Your task to perform on an android device: Open a new Chrome private window Image 0: 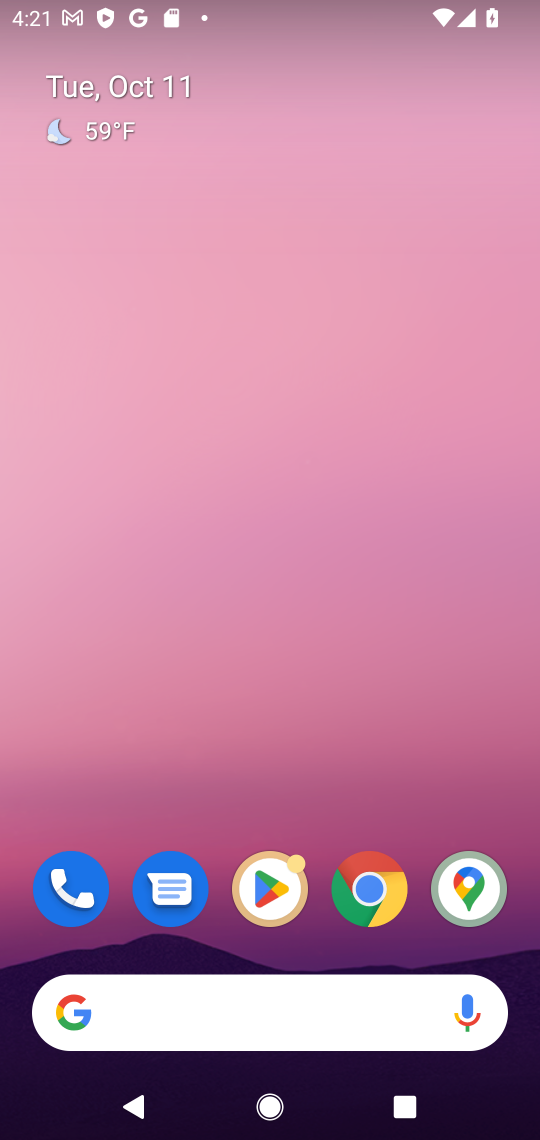
Step 0: drag from (179, 934) to (189, 237)
Your task to perform on an android device: Open a new Chrome private window Image 1: 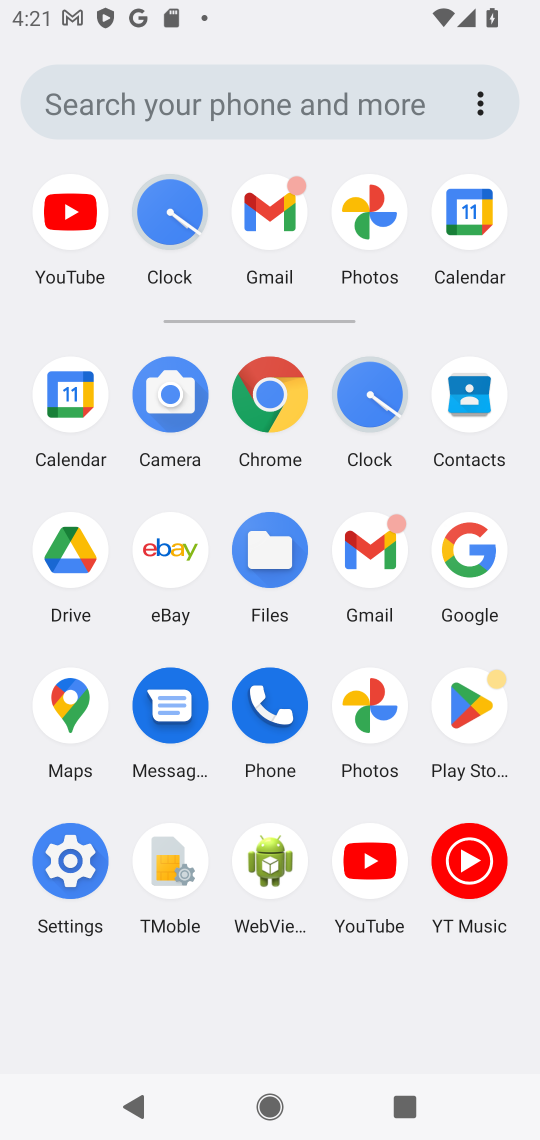
Step 1: click (458, 544)
Your task to perform on an android device: Open a new Chrome private window Image 2: 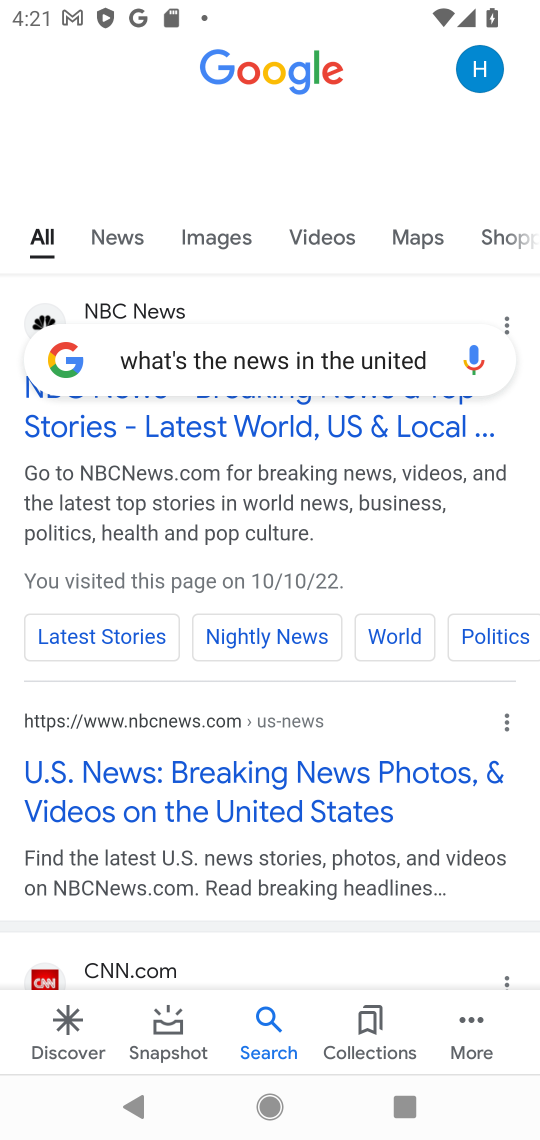
Step 2: click (184, 359)
Your task to perform on an android device: Open a new Chrome private window Image 3: 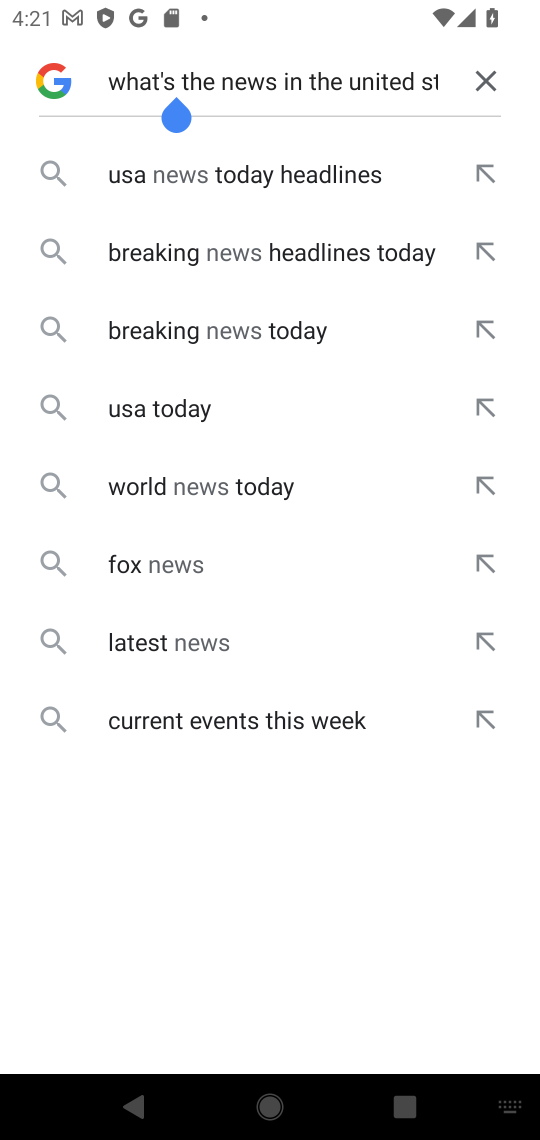
Step 3: click (478, 71)
Your task to perform on an android device: Open a new Chrome private window Image 4: 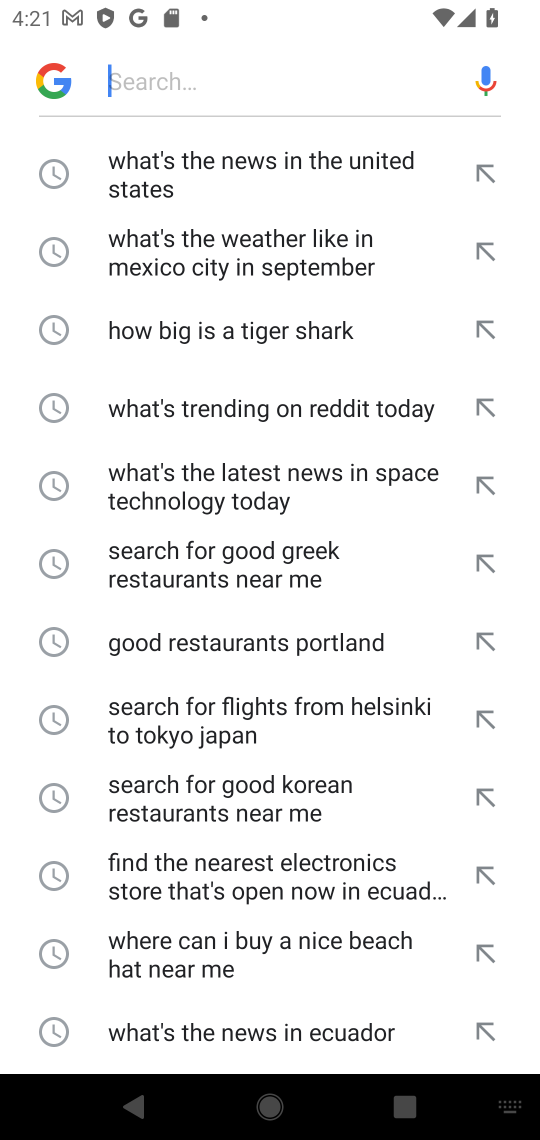
Step 4: press home button
Your task to perform on an android device: Open a new Chrome private window Image 5: 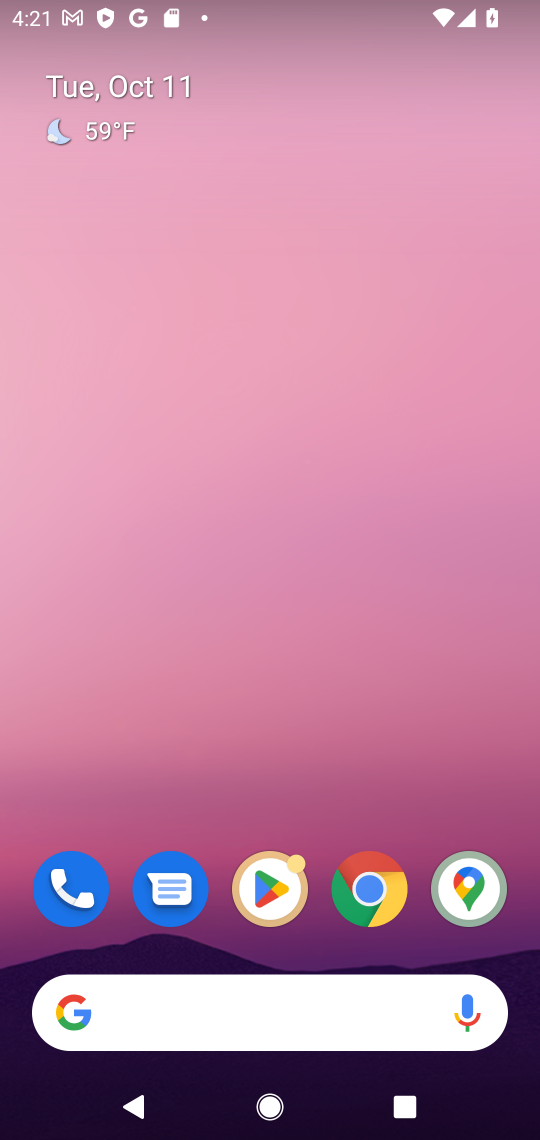
Step 5: drag from (316, 1012) to (310, 450)
Your task to perform on an android device: Open a new Chrome private window Image 6: 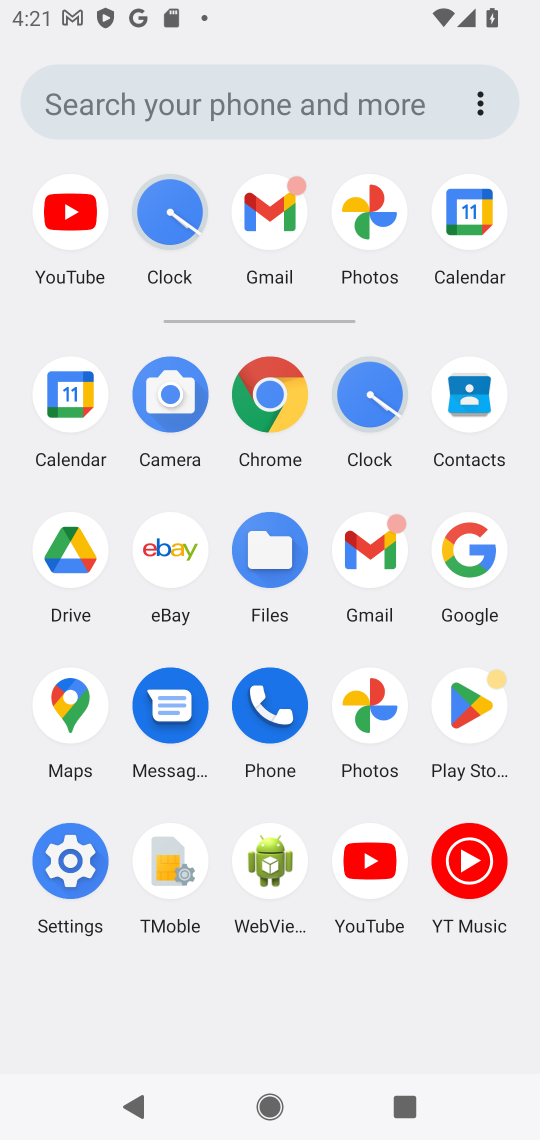
Step 6: click (461, 542)
Your task to perform on an android device: Open a new Chrome private window Image 7: 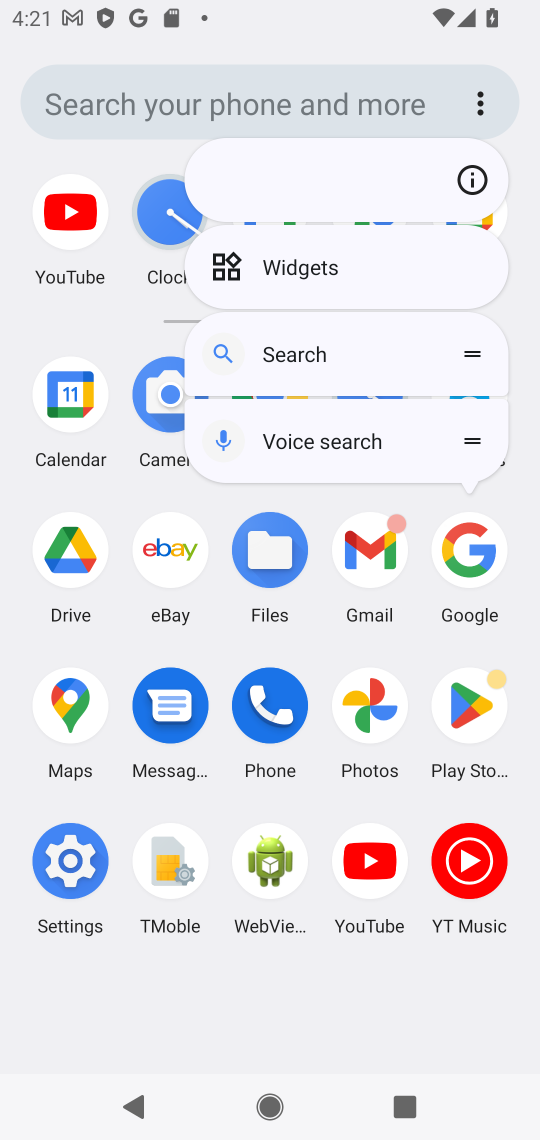
Step 7: press back button
Your task to perform on an android device: Open a new Chrome private window Image 8: 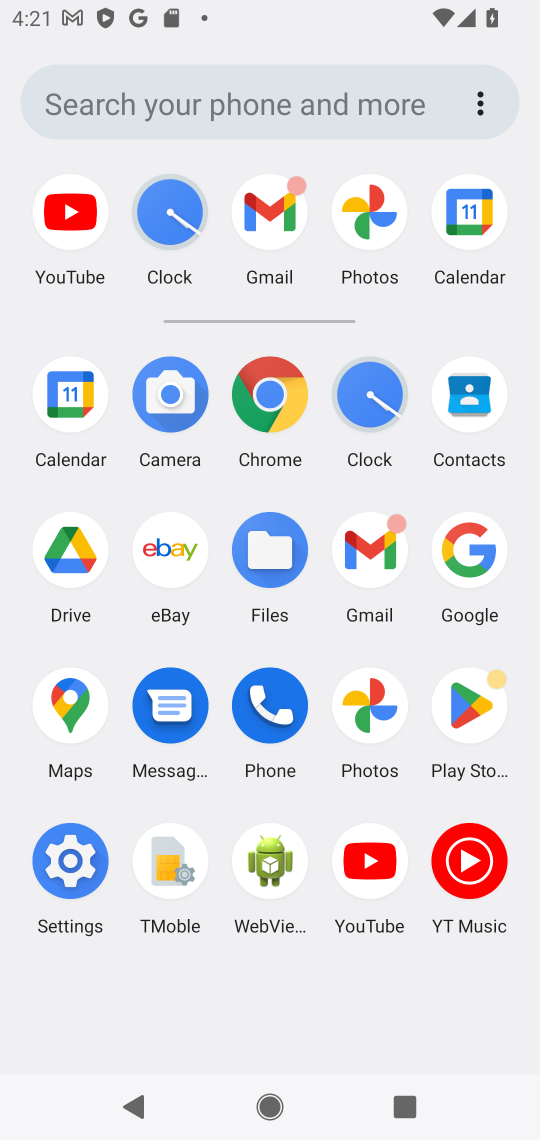
Step 8: click (262, 396)
Your task to perform on an android device: Open a new Chrome private window Image 9: 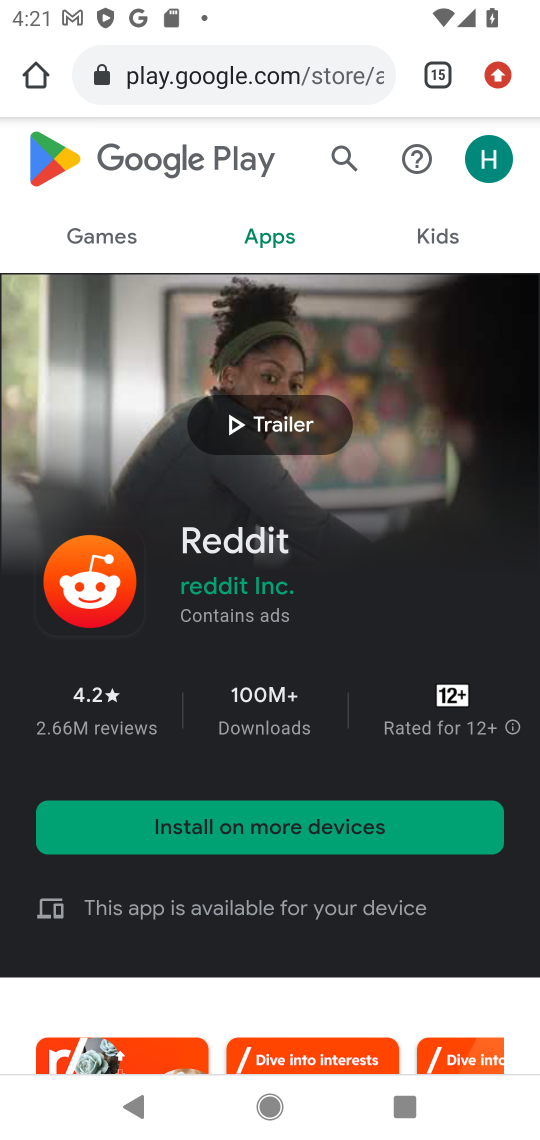
Step 9: click (501, 67)
Your task to perform on an android device: Open a new Chrome private window Image 10: 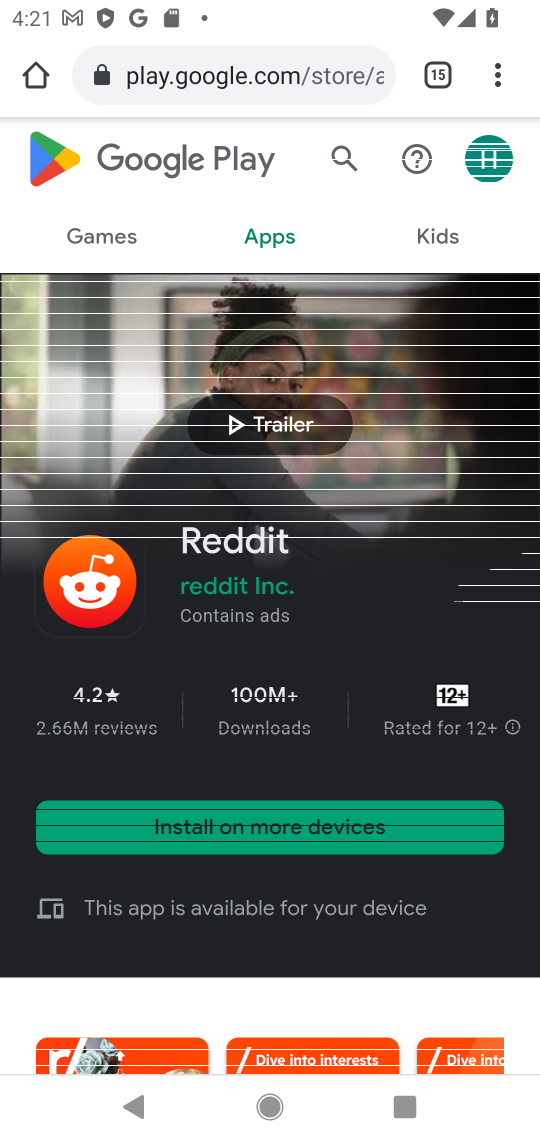
Step 10: click (501, 67)
Your task to perform on an android device: Open a new Chrome private window Image 11: 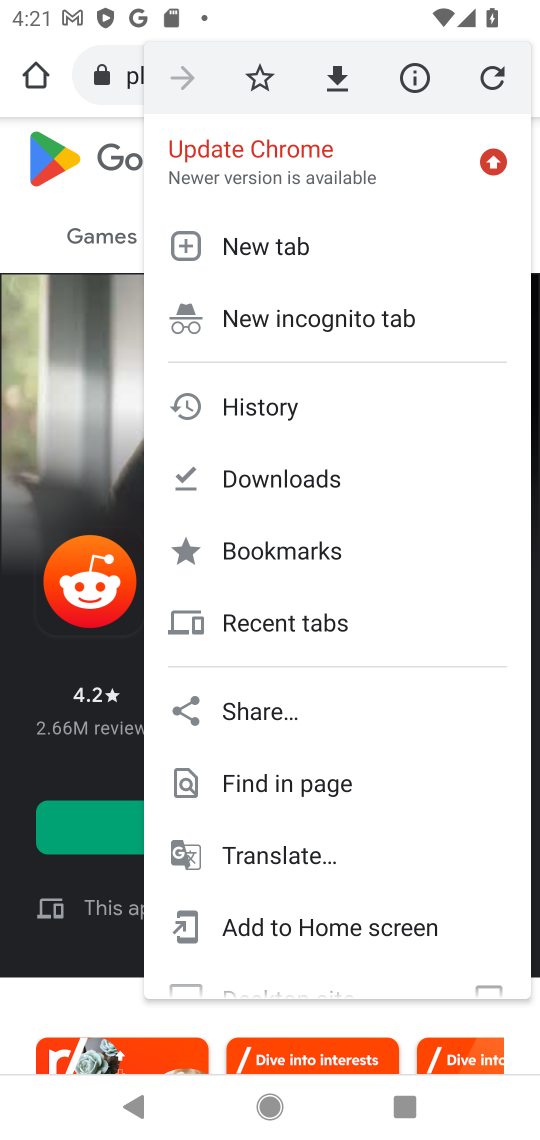
Step 11: click (295, 251)
Your task to perform on an android device: Open a new Chrome private window Image 12: 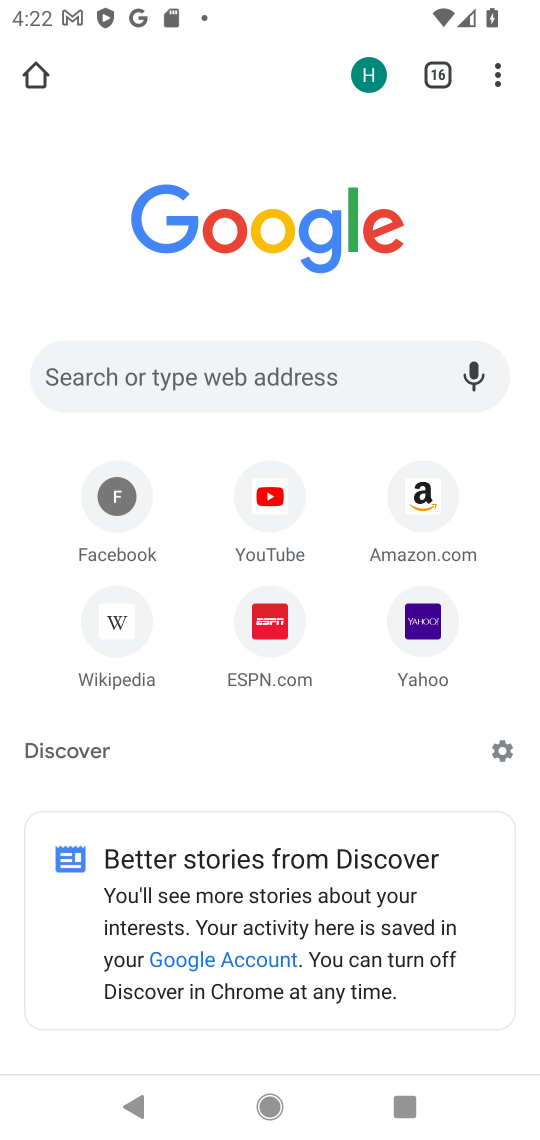
Step 12: task complete